Your task to perform on an android device: Go to Reddit.com Image 0: 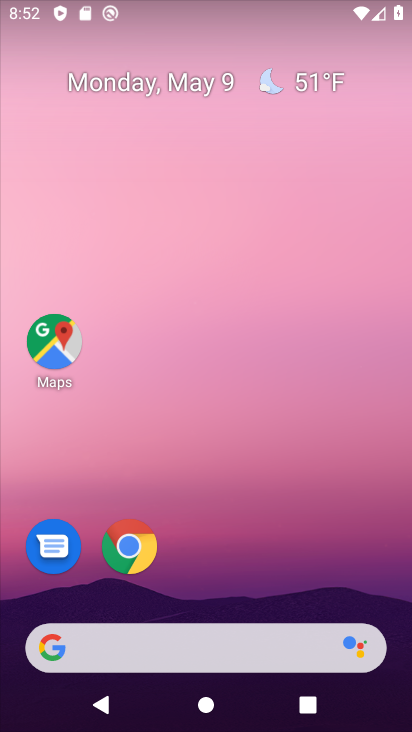
Step 0: click (132, 540)
Your task to perform on an android device: Go to Reddit.com Image 1: 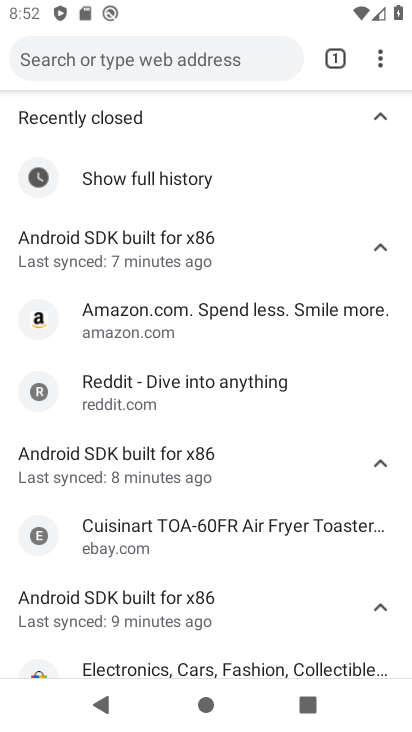
Step 1: click (193, 62)
Your task to perform on an android device: Go to Reddit.com Image 2: 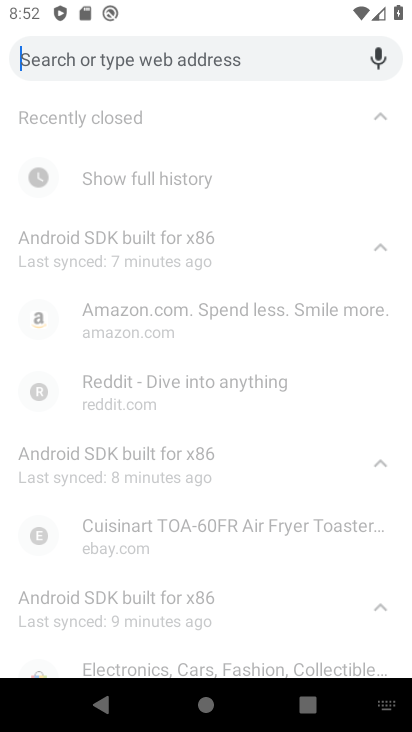
Step 2: click (192, 386)
Your task to perform on an android device: Go to Reddit.com Image 3: 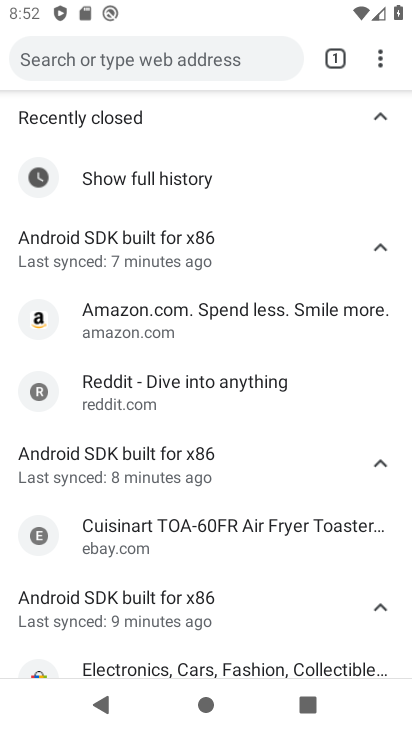
Step 3: click (181, 383)
Your task to perform on an android device: Go to Reddit.com Image 4: 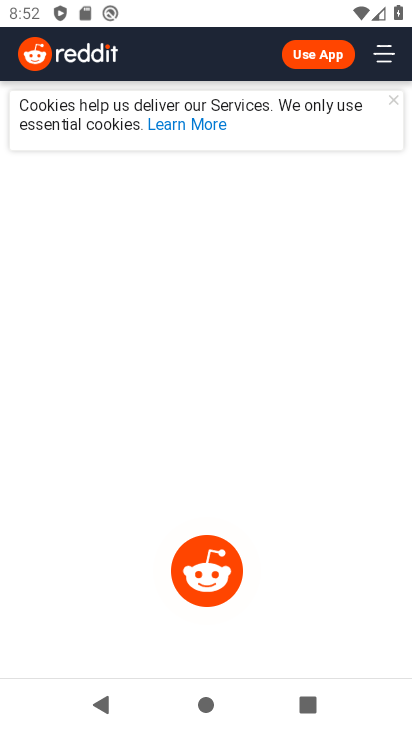
Step 4: task complete